Your task to perform on an android device: Open Google Chrome and open the bookmarks view Image 0: 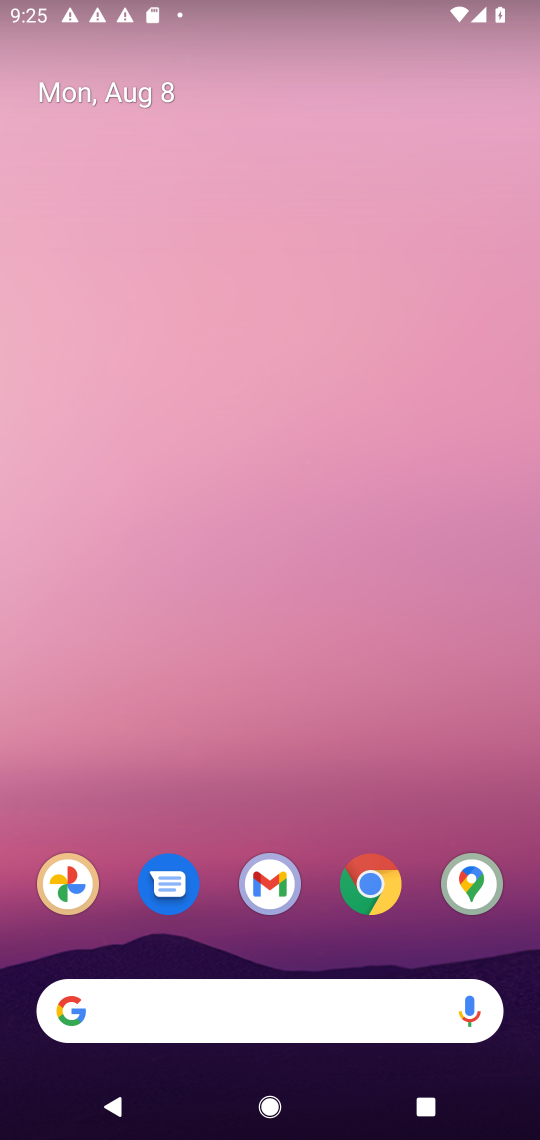
Step 0: click (373, 884)
Your task to perform on an android device: Open Google Chrome and open the bookmarks view Image 1: 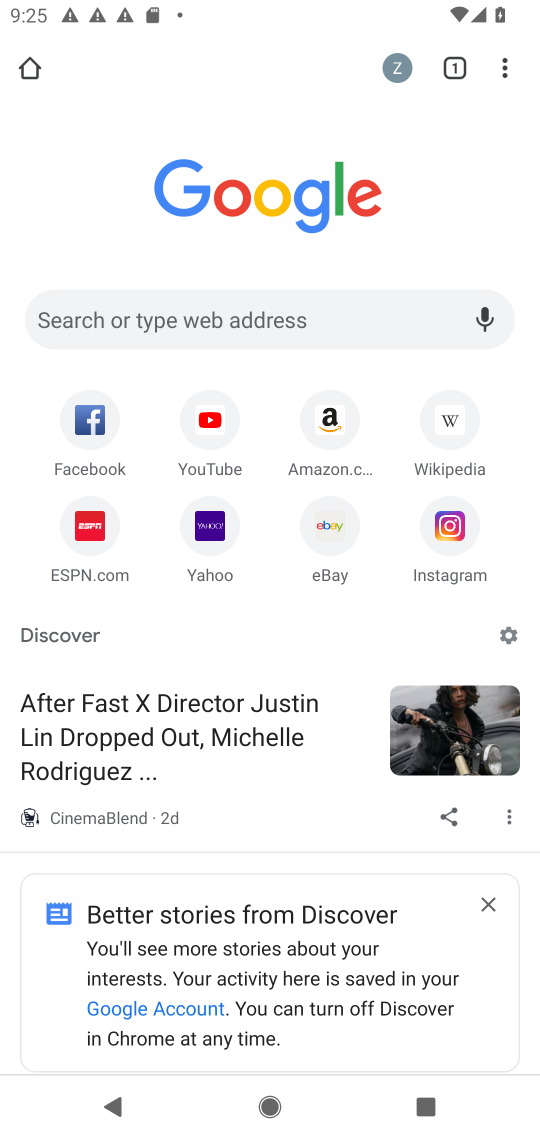
Step 1: click (510, 65)
Your task to perform on an android device: Open Google Chrome and open the bookmarks view Image 2: 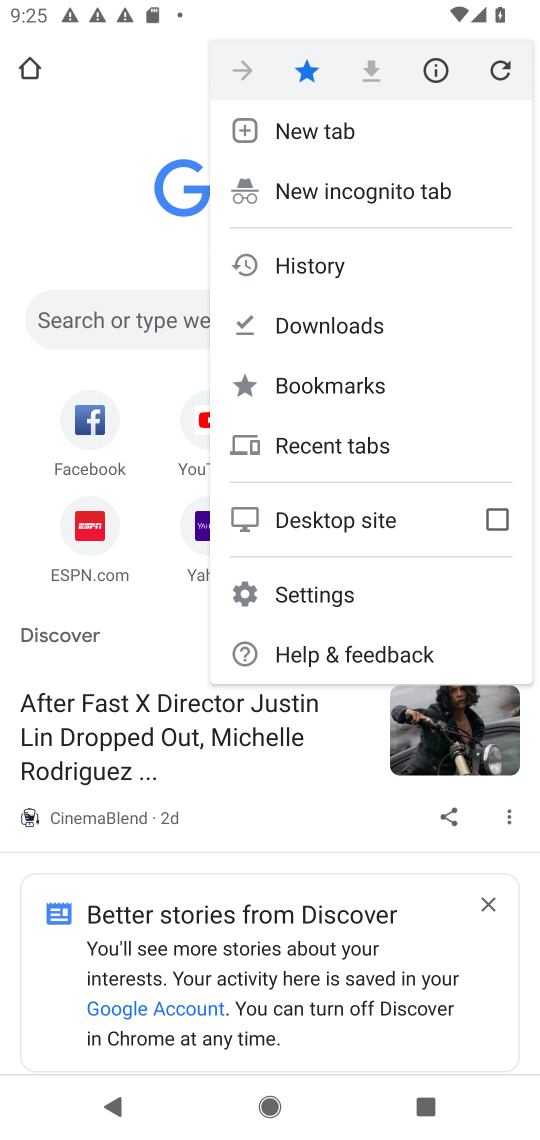
Step 2: click (340, 384)
Your task to perform on an android device: Open Google Chrome and open the bookmarks view Image 3: 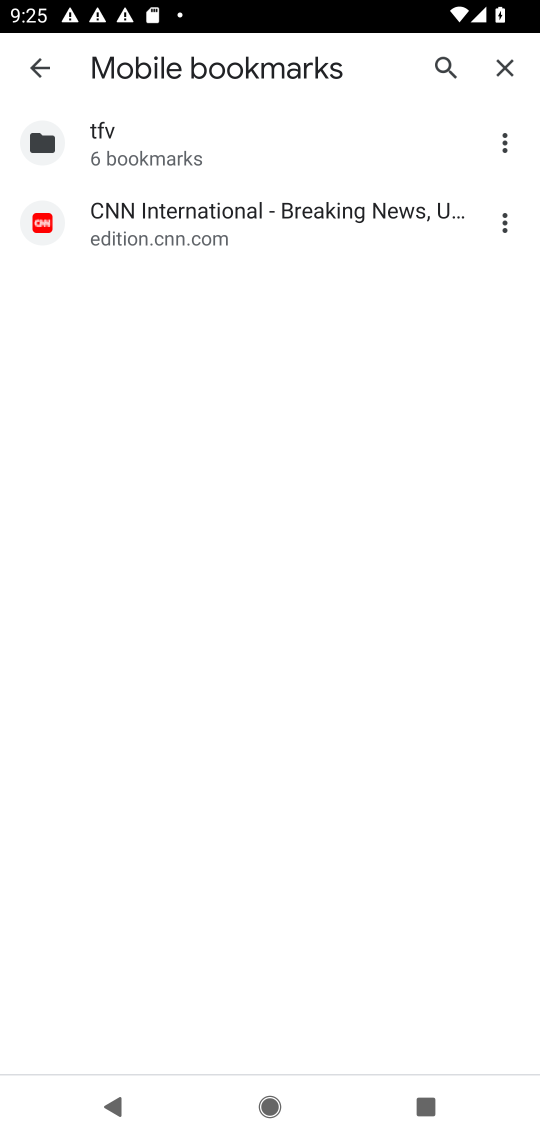
Step 3: click (507, 141)
Your task to perform on an android device: Open Google Chrome and open the bookmarks view Image 4: 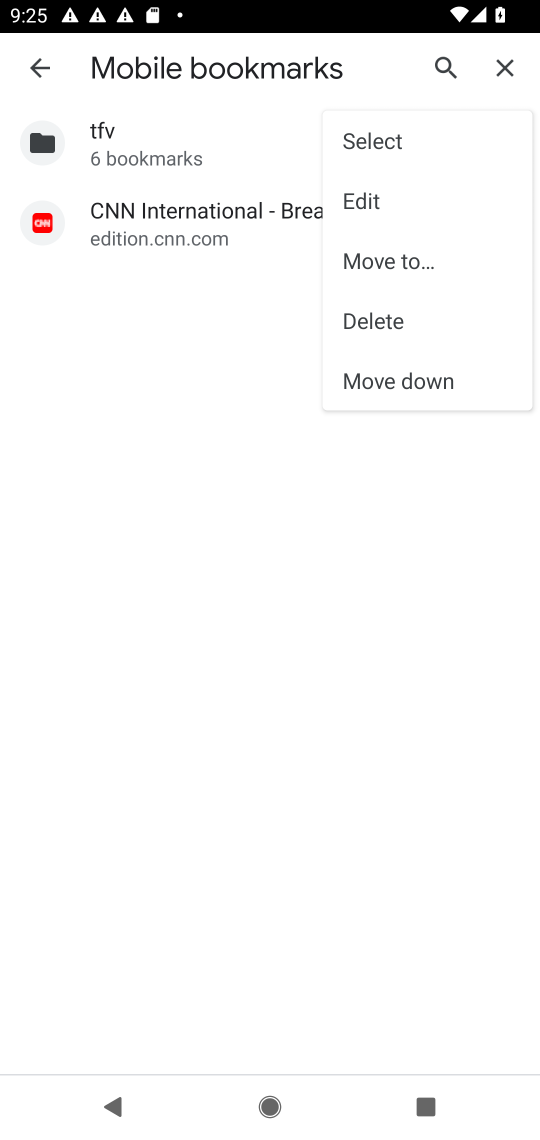
Step 4: click (381, 194)
Your task to perform on an android device: Open Google Chrome and open the bookmarks view Image 5: 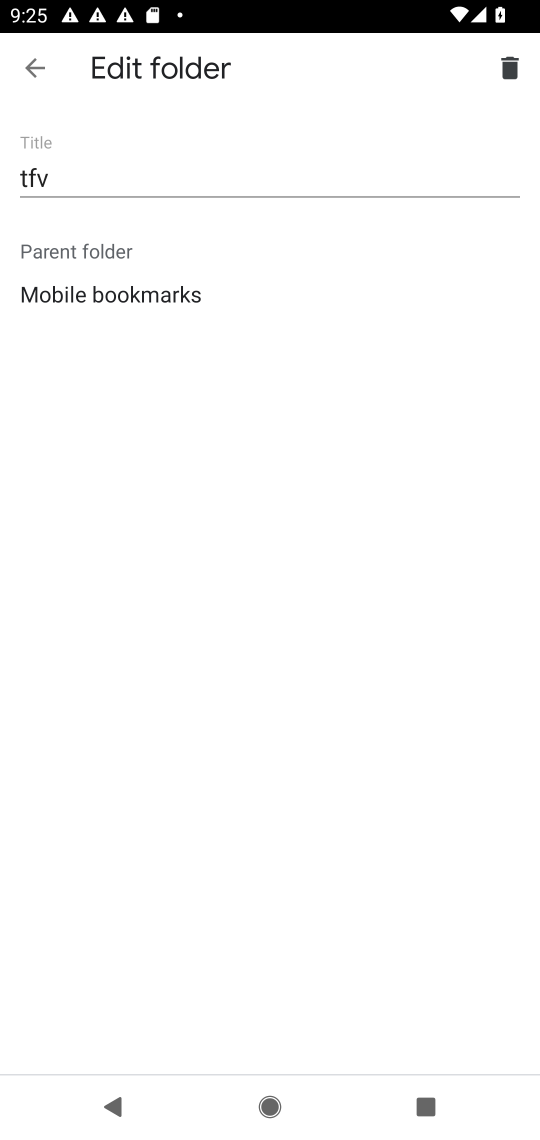
Step 5: task complete